Your task to perform on an android device: open a new tab in the chrome app Image 0: 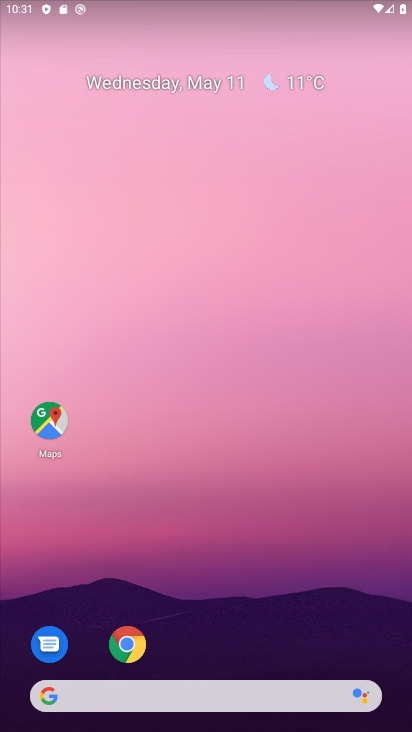
Step 0: click (136, 642)
Your task to perform on an android device: open a new tab in the chrome app Image 1: 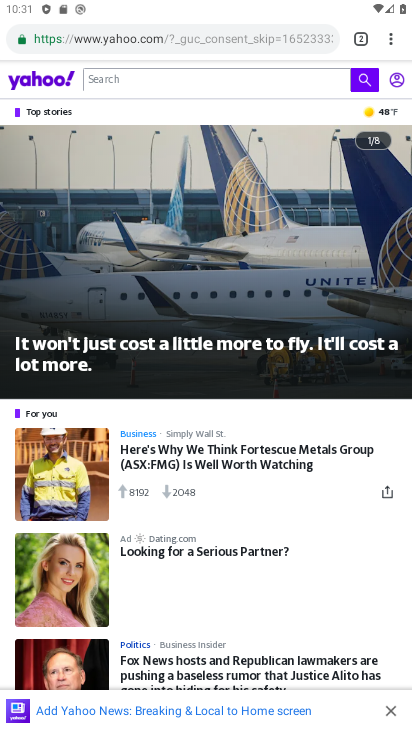
Step 1: task complete